Your task to perform on an android device: Search for "razer kraken" on target, select the first entry, and add it to the cart. Image 0: 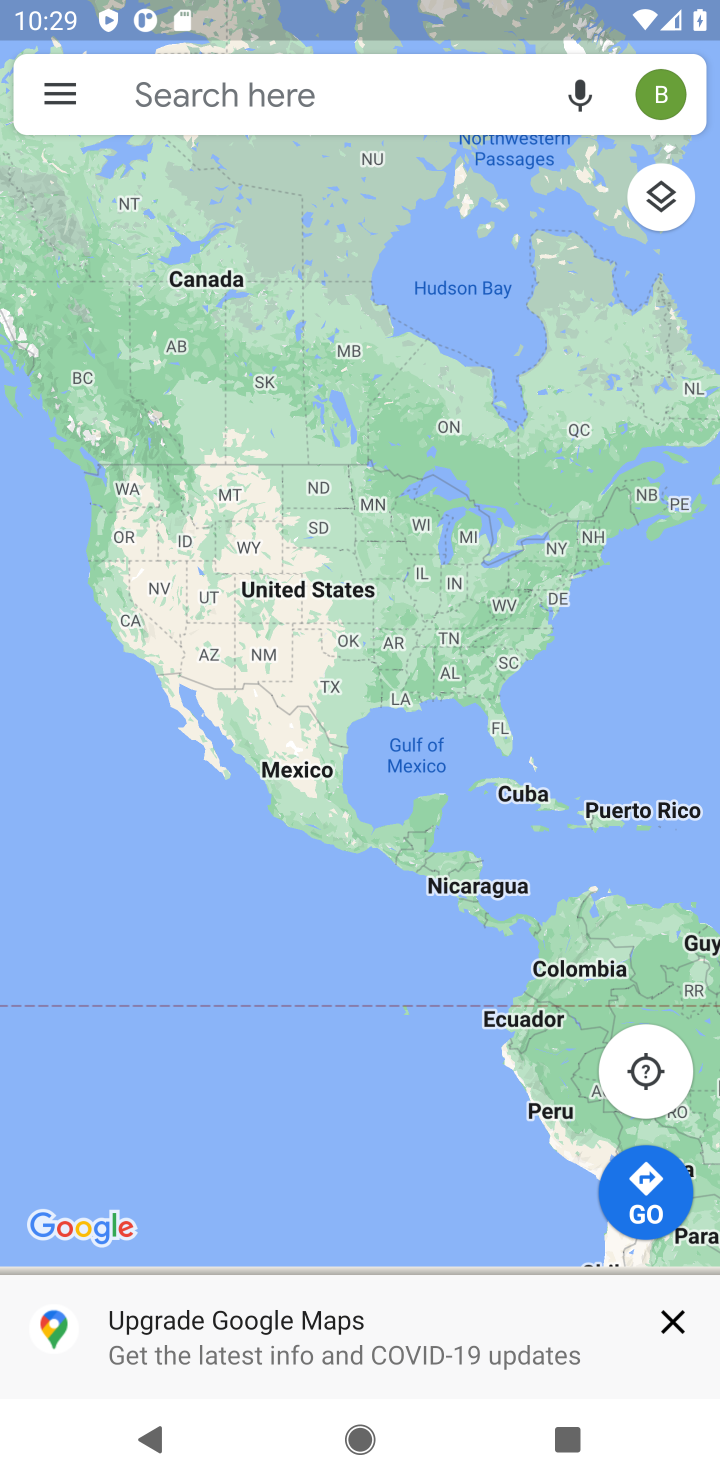
Step 0: press home button
Your task to perform on an android device: Search for "razer kraken" on target, select the first entry, and add it to the cart. Image 1: 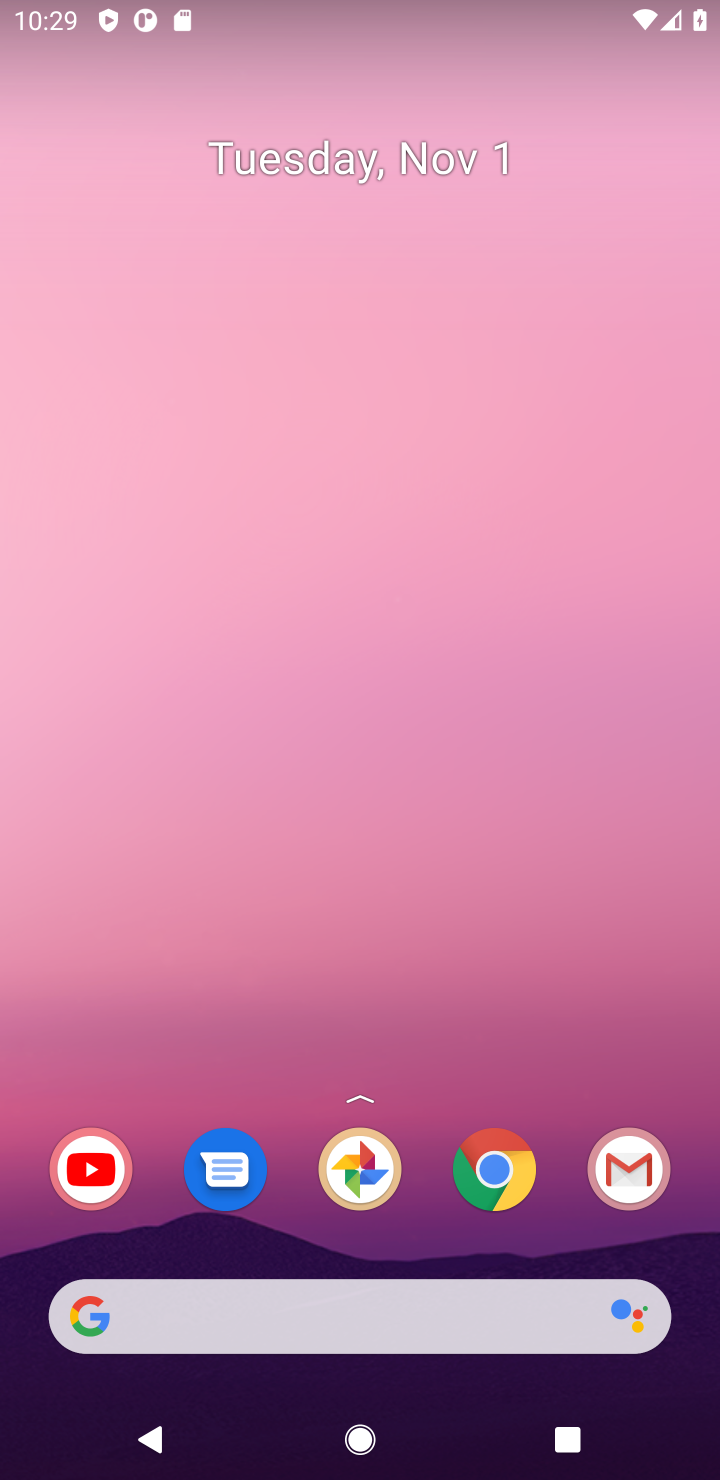
Step 1: click (497, 1174)
Your task to perform on an android device: Search for "razer kraken" on target, select the first entry, and add it to the cart. Image 2: 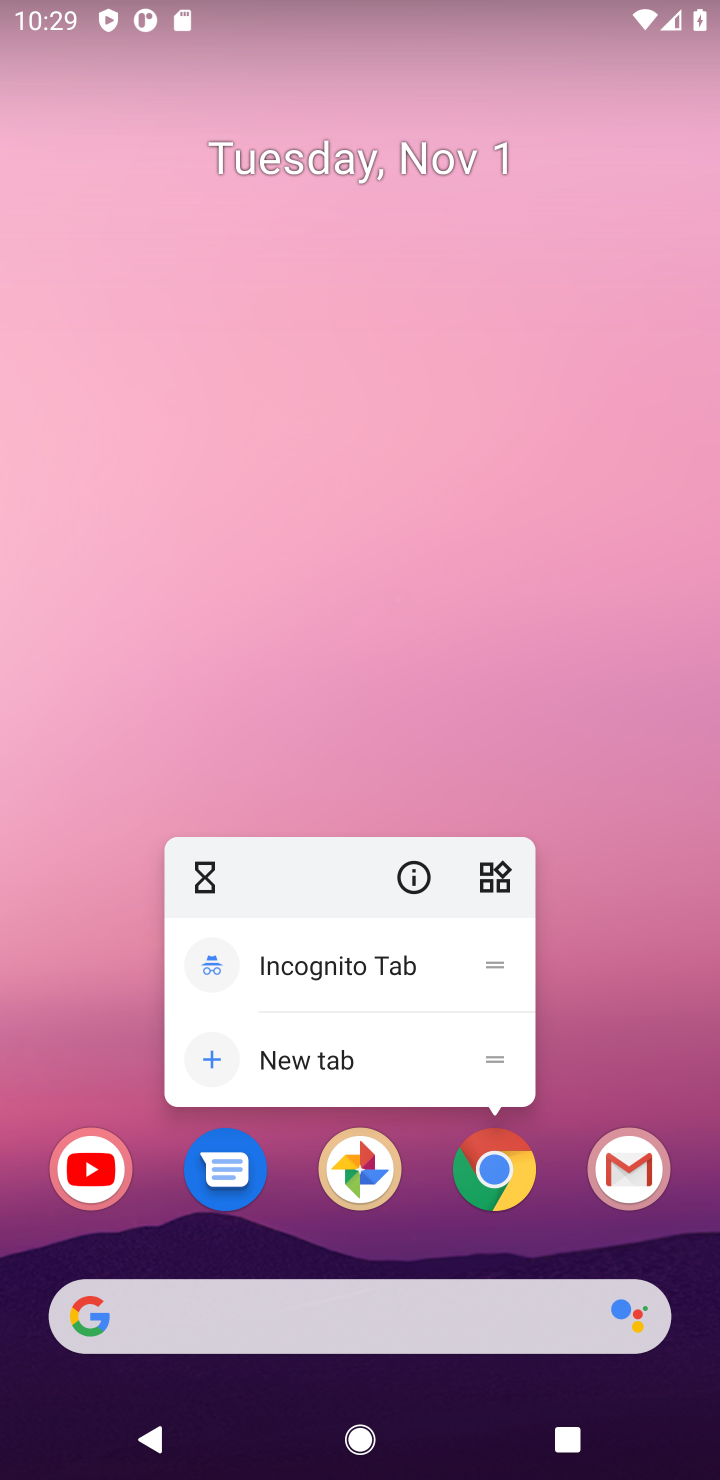
Step 2: click (477, 1177)
Your task to perform on an android device: Search for "razer kraken" on target, select the first entry, and add it to the cart. Image 3: 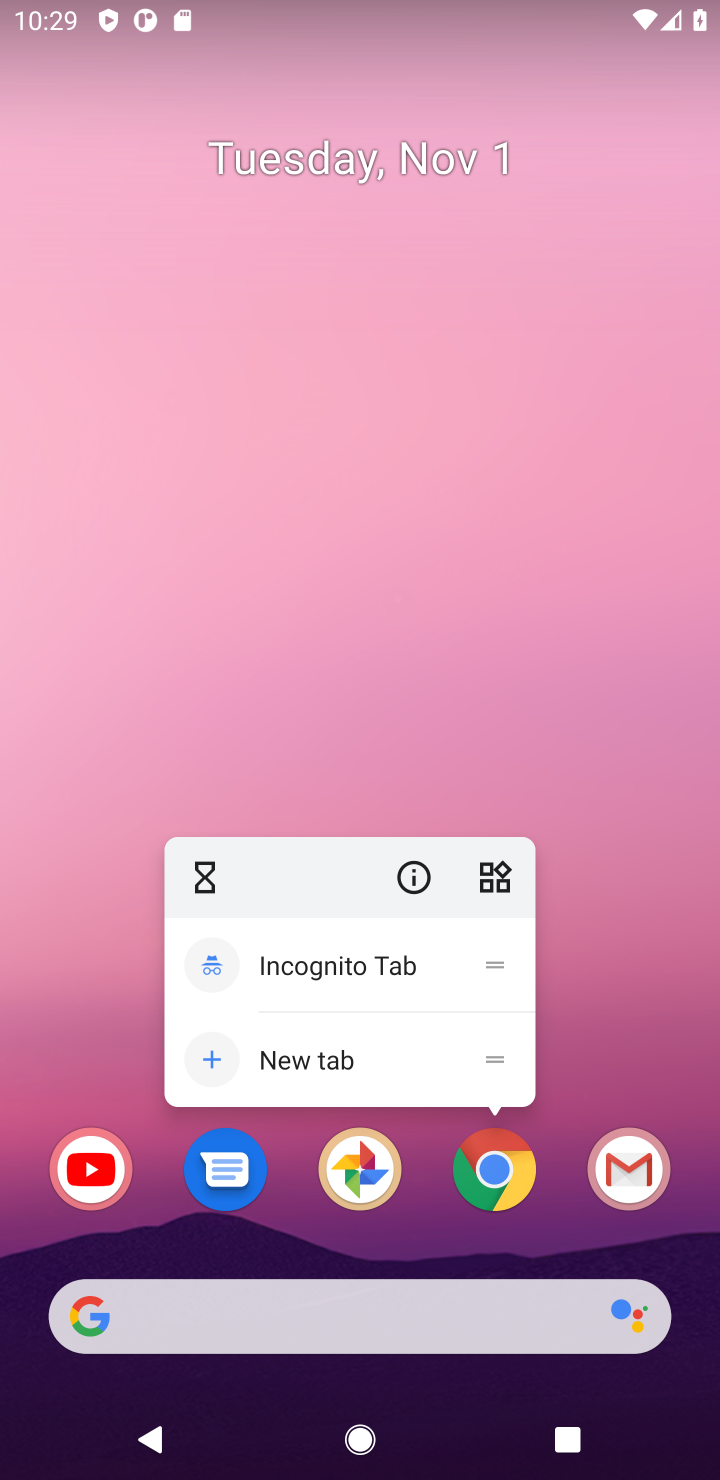
Step 3: click (477, 1177)
Your task to perform on an android device: Search for "razer kraken" on target, select the first entry, and add it to the cart. Image 4: 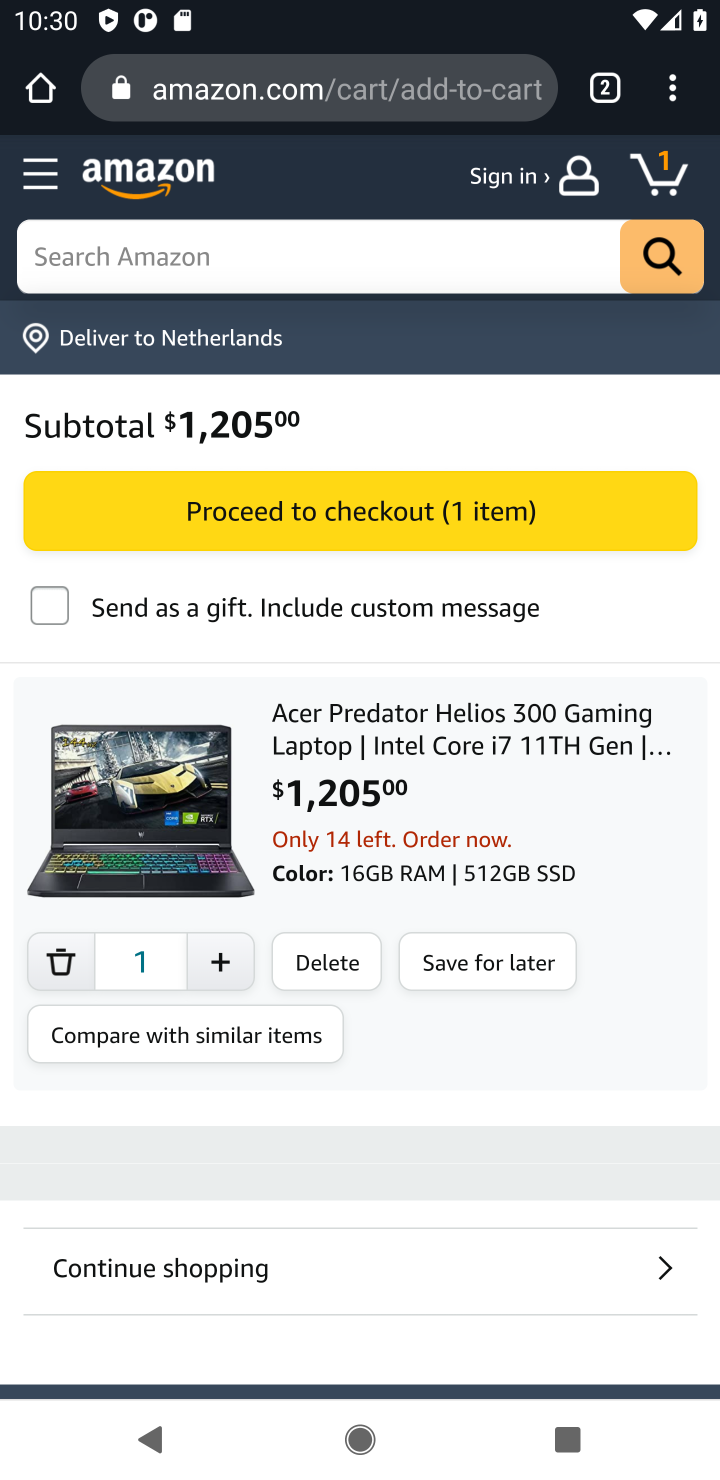
Step 4: click (343, 89)
Your task to perform on an android device: Search for "razer kraken" on target, select the first entry, and add it to the cart. Image 5: 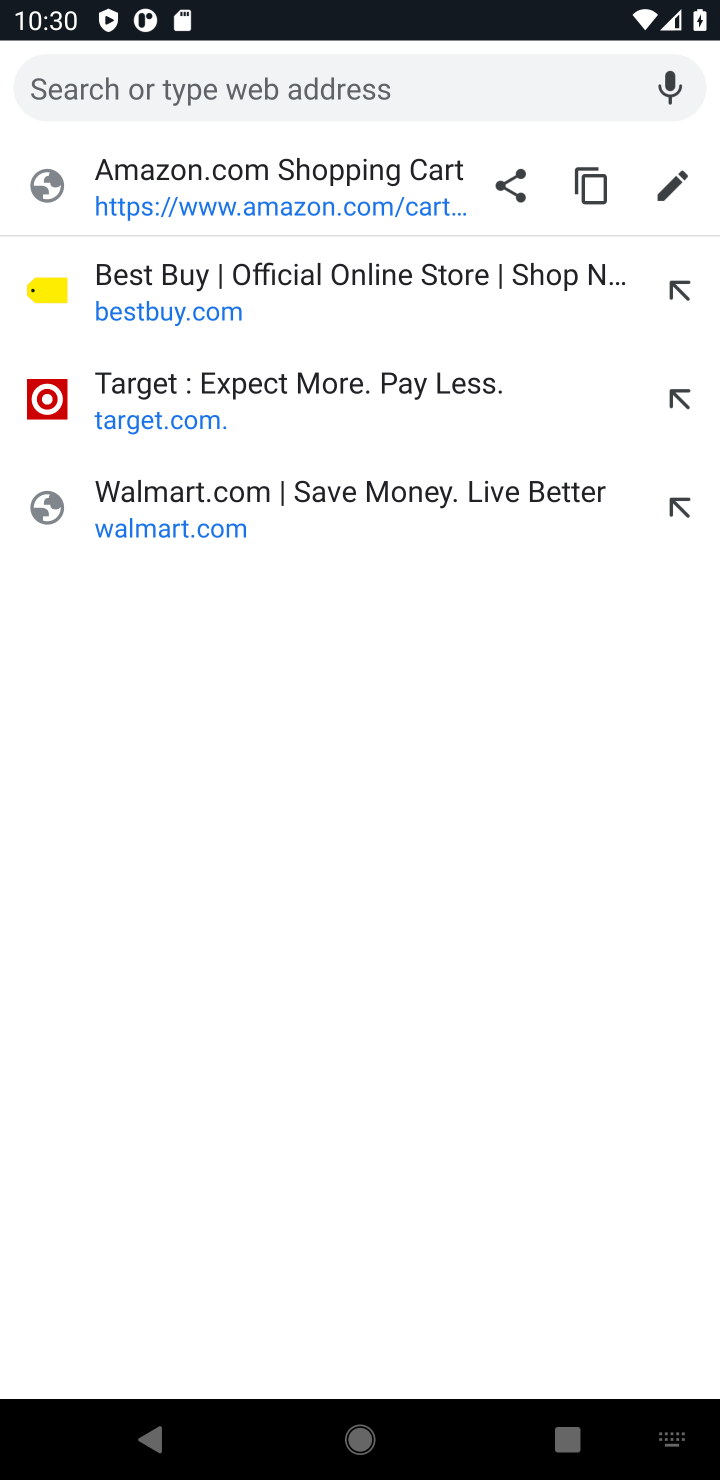
Step 5: type "target"
Your task to perform on an android device: Search for "razer kraken" on target, select the first entry, and add it to the cart. Image 6: 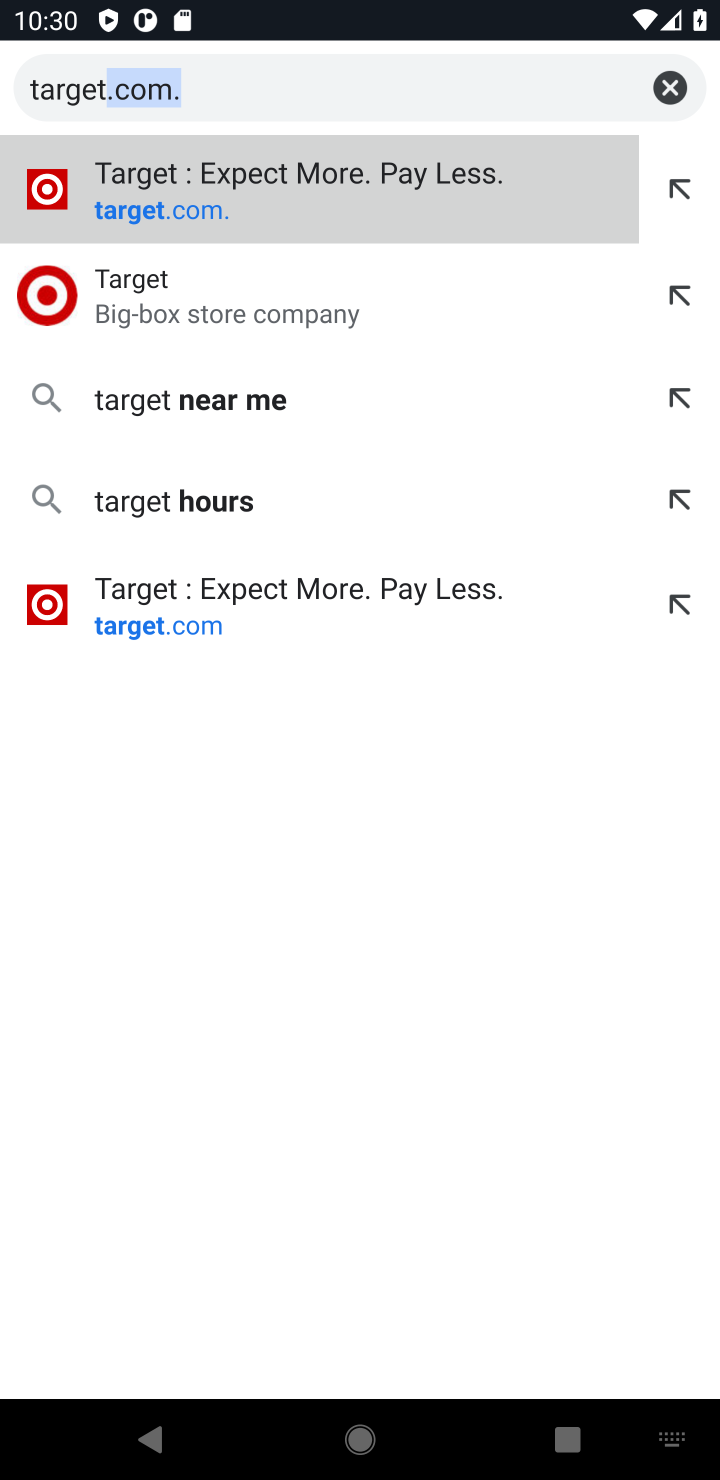
Step 6: click (258, 295)
Your task to perform on an android device: Search for "razer kraken" on target, select the first entry, and add it to the cart. Image 7: 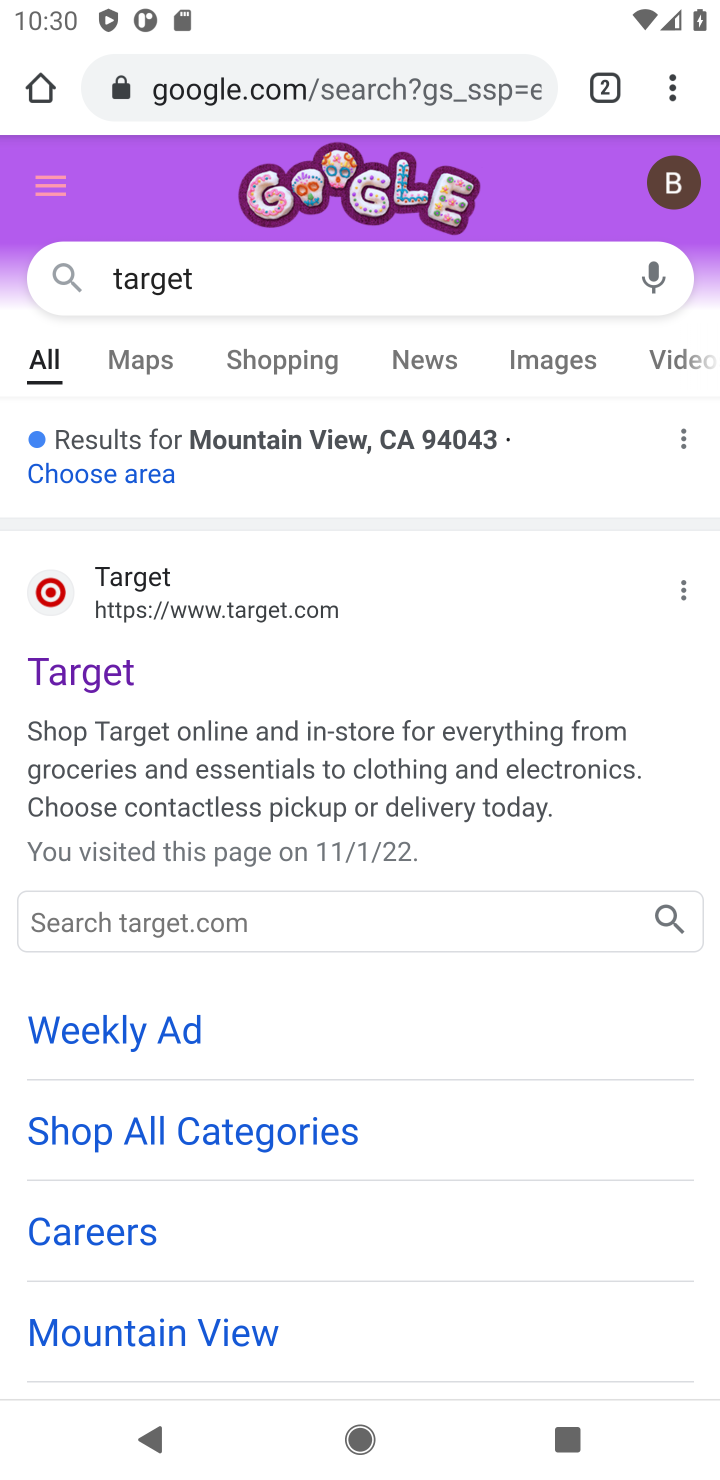
Step 7: drag from (363, 1006) to (375, 523)
Your task to perform on an android device: Search for "razer kraken" on target, select the first entry, and add it to the cart. Image 8: 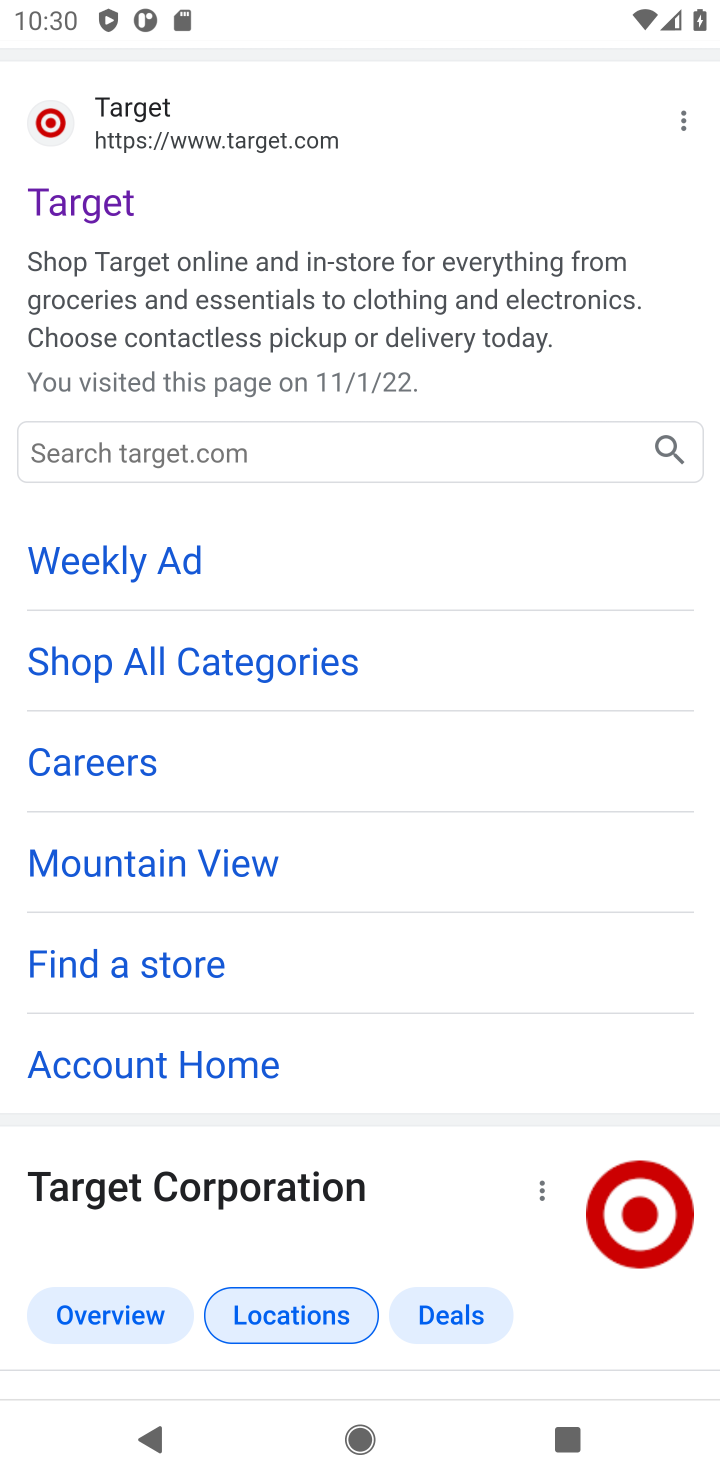
Step 8: drag from (353, 1040) to (571, 1240)
Your task to perform on an android device: Search for "razer kraken" on target, select the first entry, and add it to the cart. Image 9: 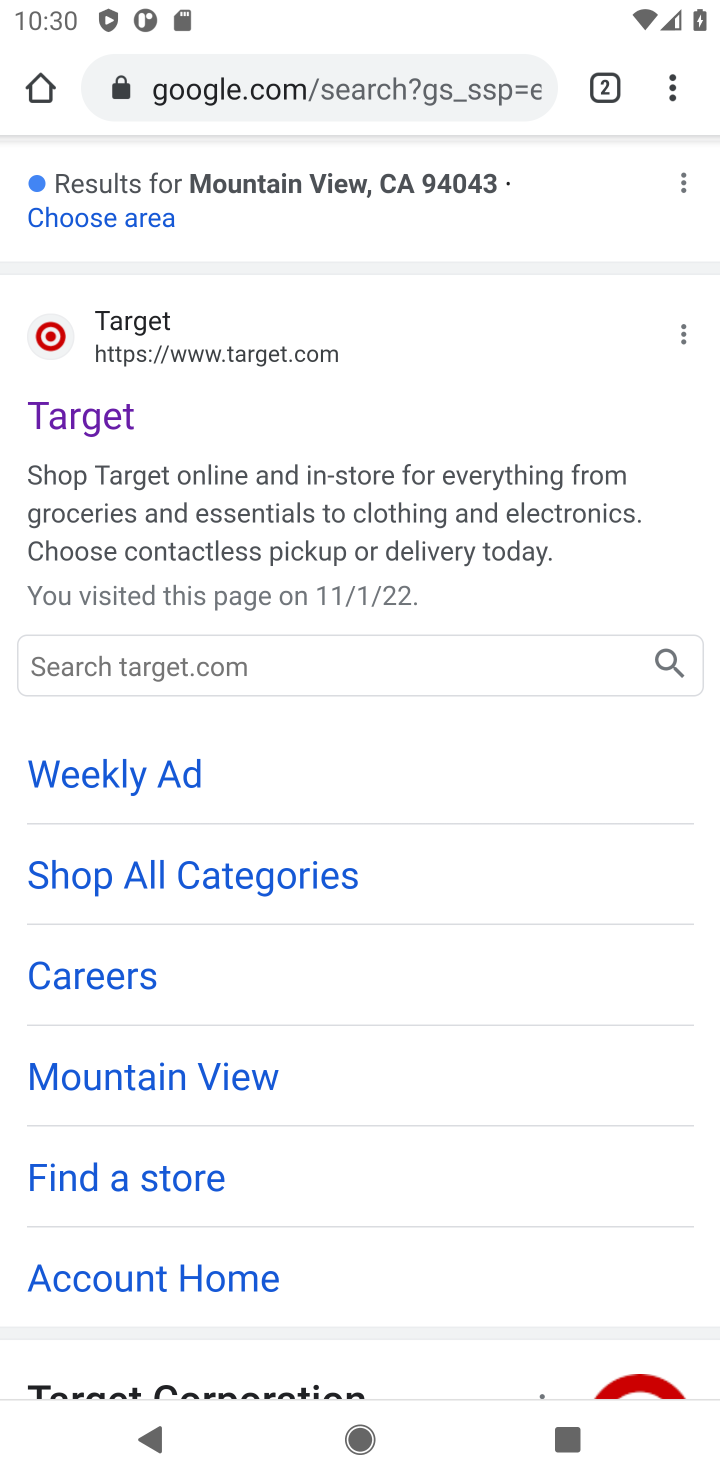
Step 9: click (165, 338)
Your task to perform on an android device: Search for "razer kraken" on target, select the first entry, and add it to the cart. Image 10: 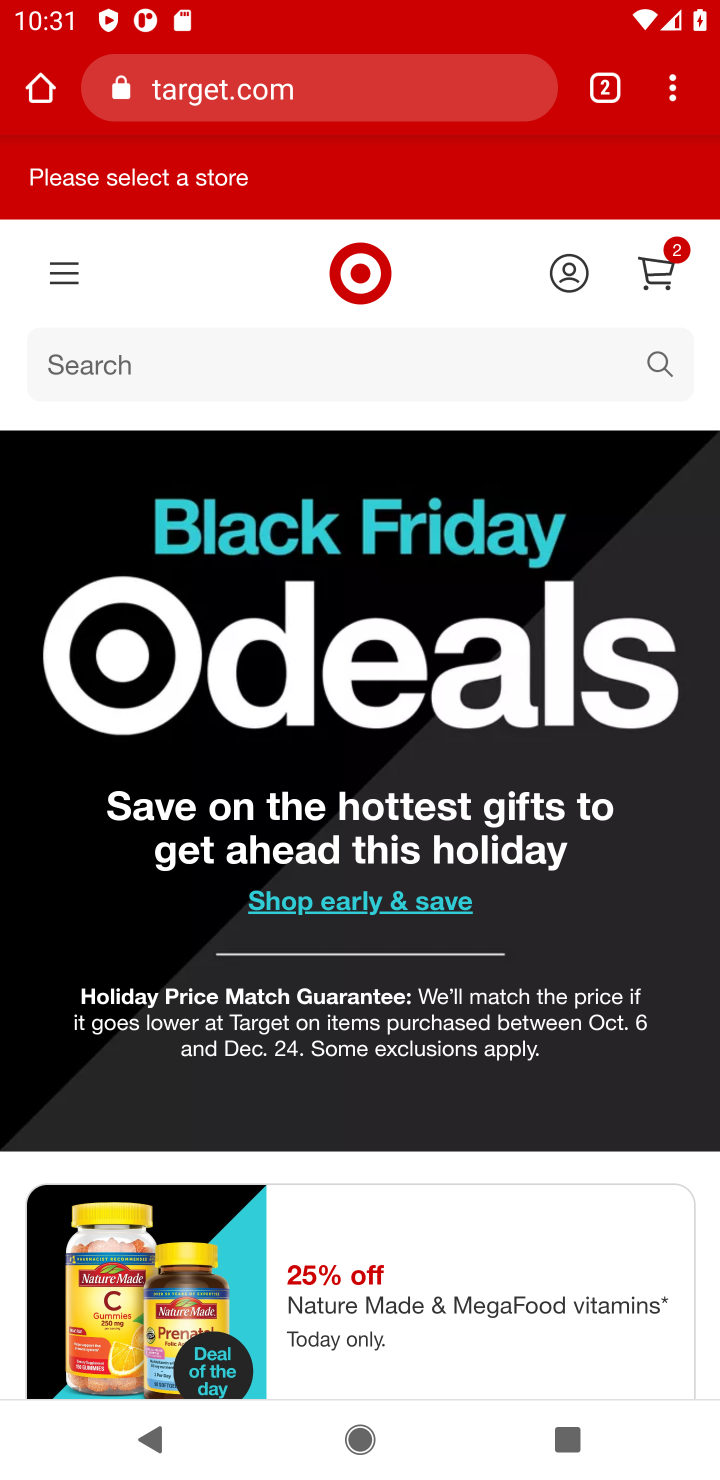
Step 10: click (659, 360)
Your task to perform on an android device: Search for "razer kraken" on target, select the first entry, and add it to the cart. Image 11: 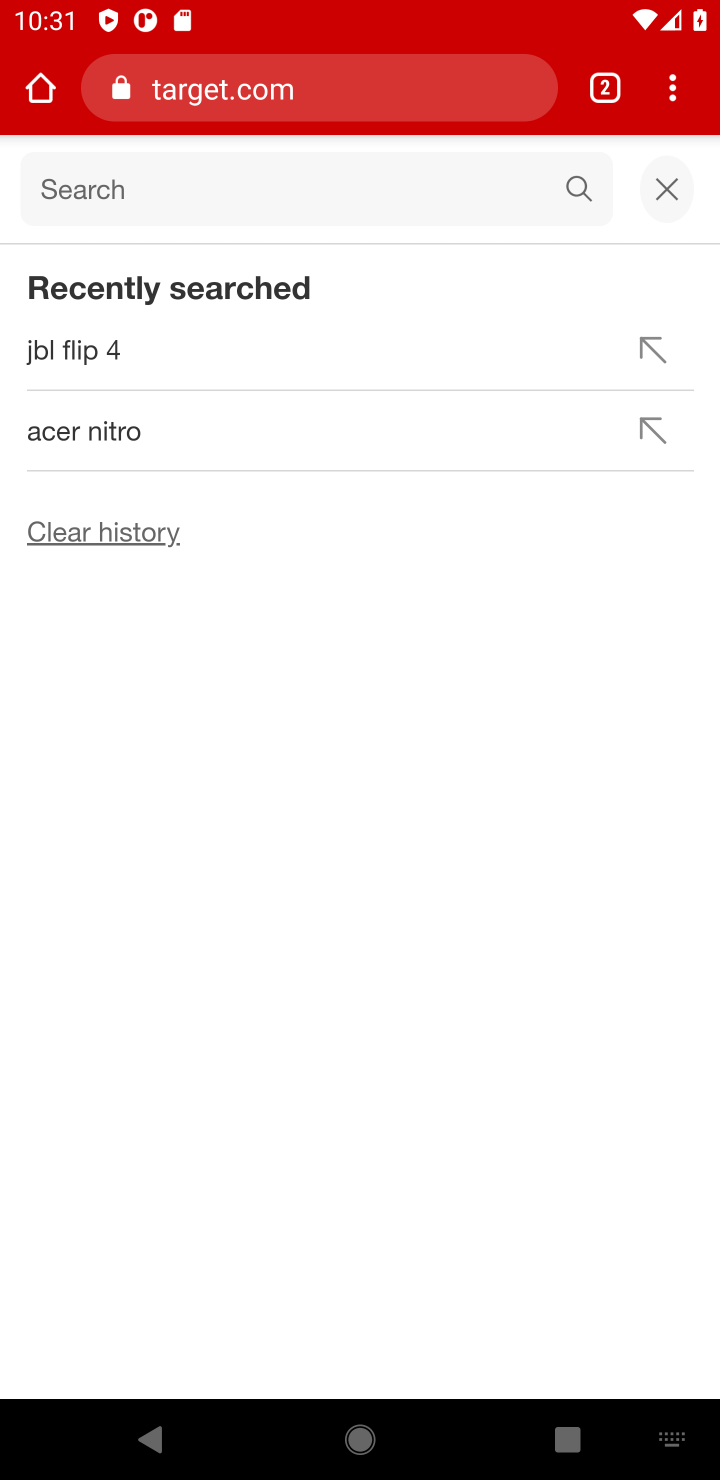
Step 11: type "razer kraken"
Your task to perform on an android device: Search for "razer kraken" on target, select the first entry, and add it to the cart. Image 12: 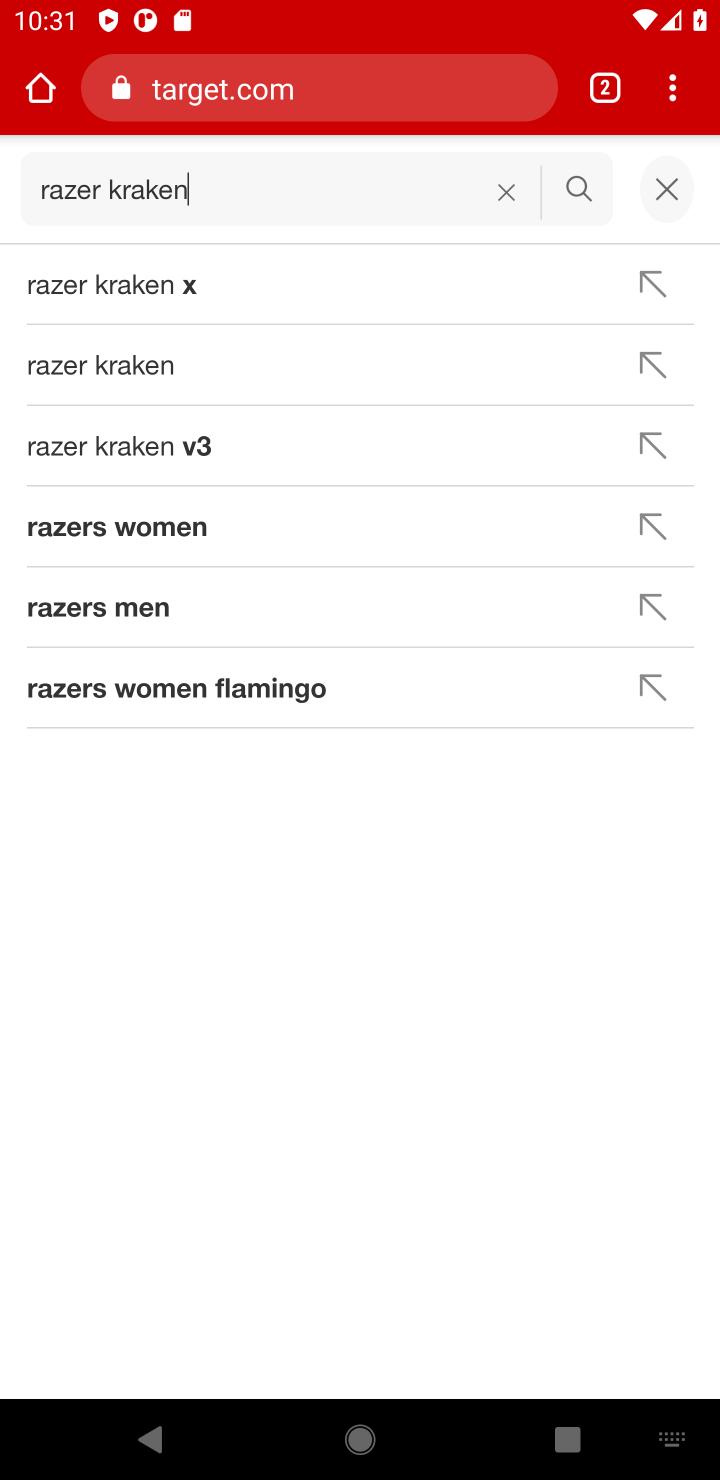
Step 12: click (127, 365)
Your task to perform on an android device: Search for "razer kraken" on target, select the first entry, and add it to the cart. Image 13: 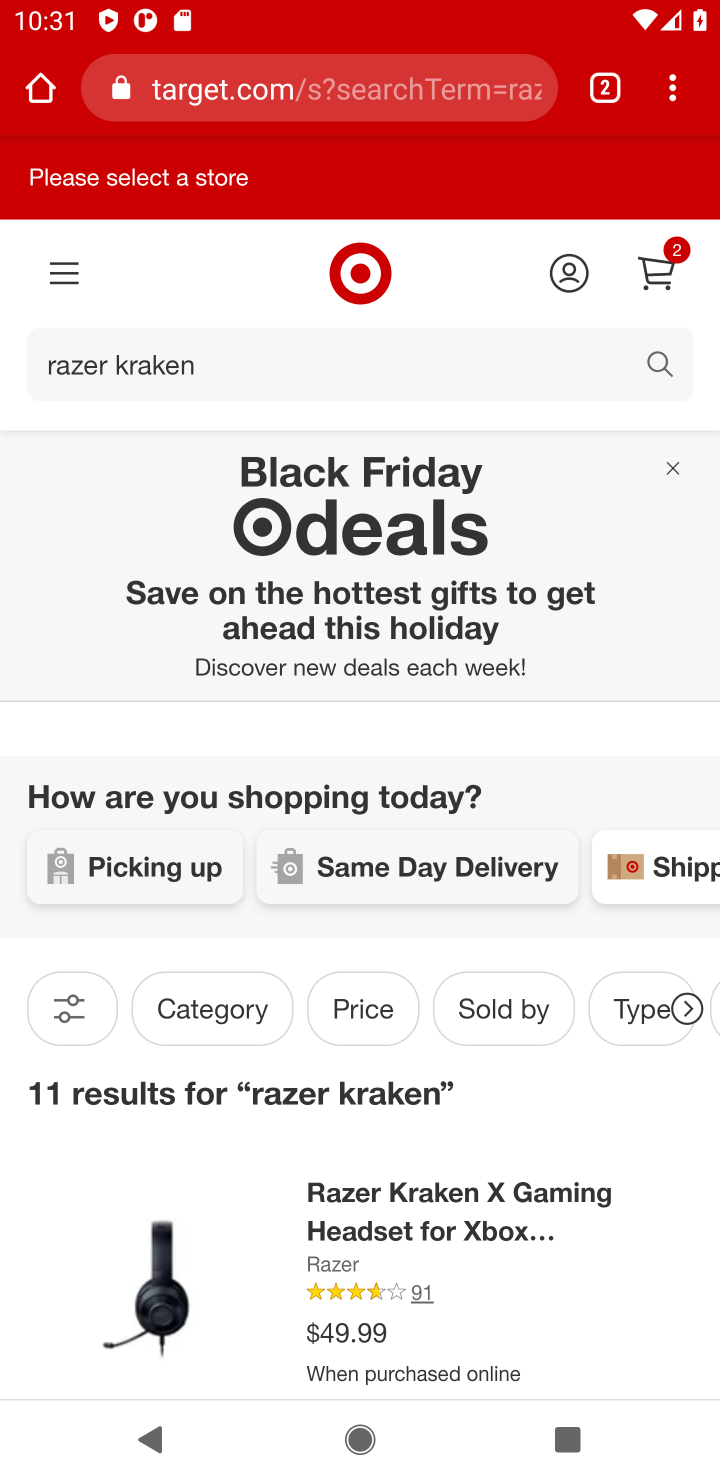
Step 13: click (171, 1231)
Your task to perform on an android device: Search for "razer kraken" on target, select the first entry, and add it to the cart. Image 14: 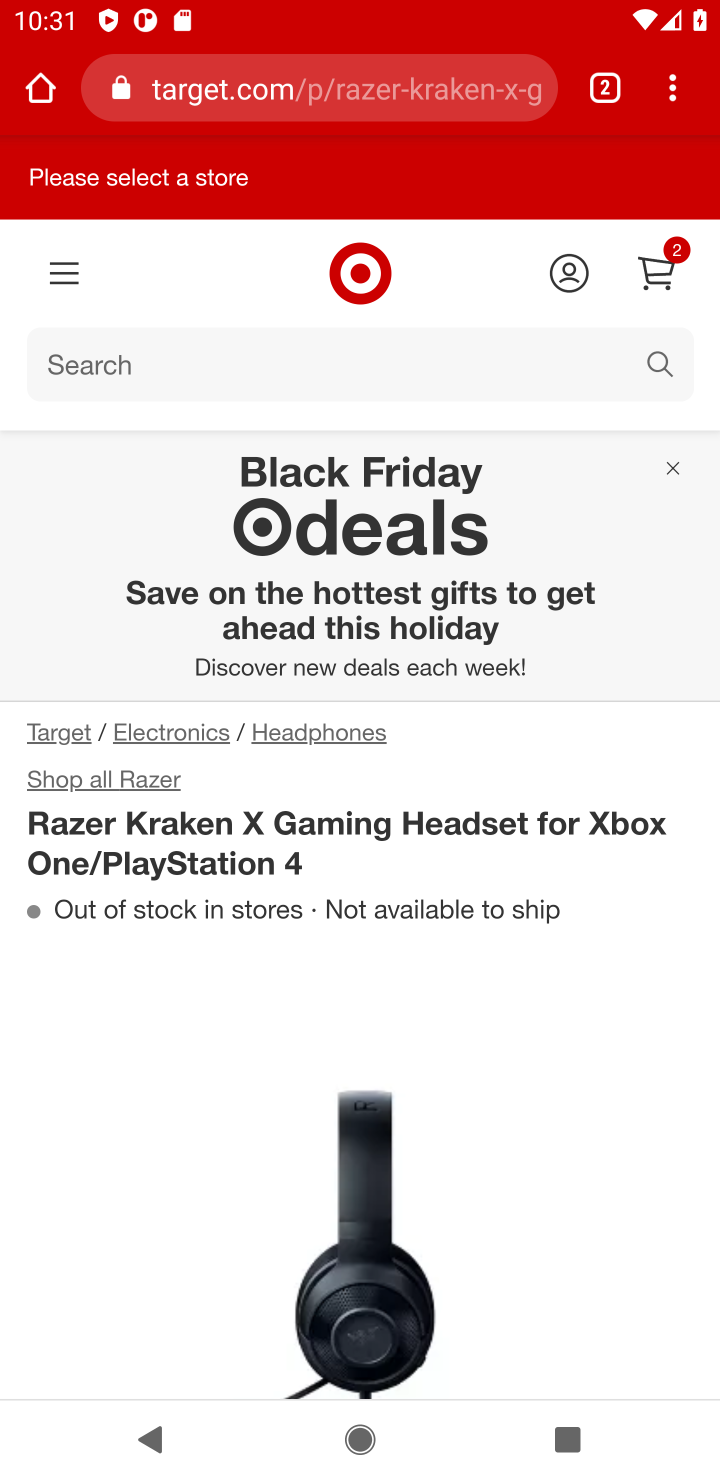
Step 14: drag from (484, 899) to (431, 566)
Your task to perform on an android device: Search for "razer kraken" on target, select the first entry, and add it to the cart. Image 15: 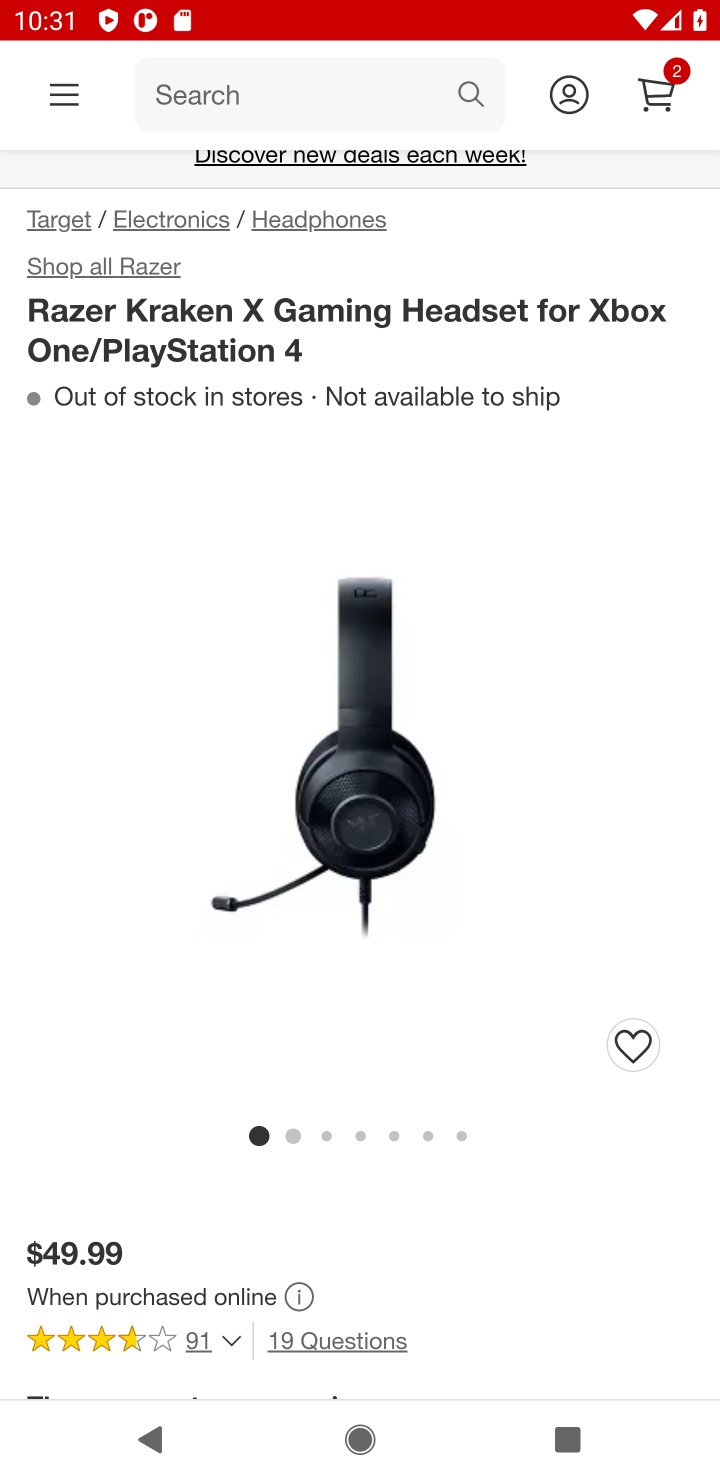
Step 15: drag from (541, 1118) to (464, 507)
Your task to perform on an android device: Search for "razer kraken" on target, select the first entry, and add it to the cart. Image 16: 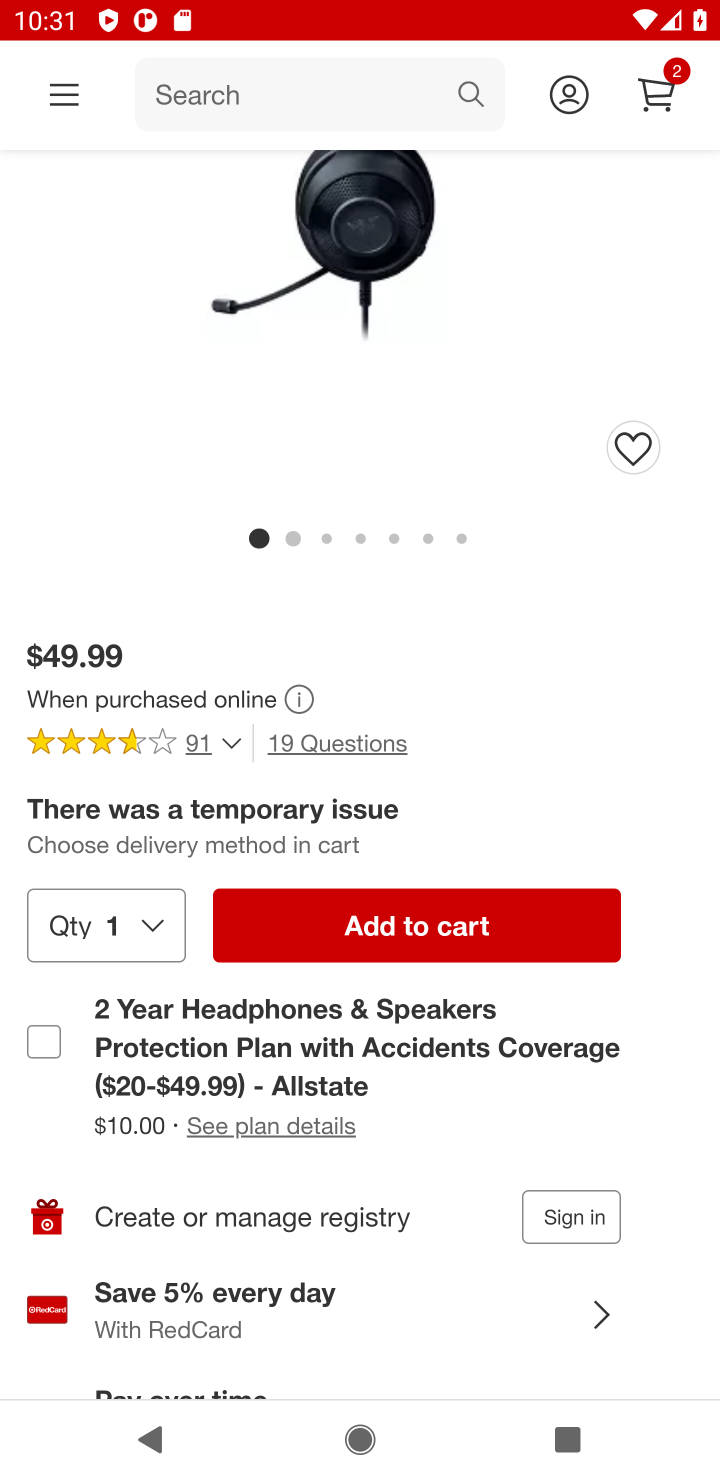
Step 16: click (478, 929)
Your task to perform on an android device: Search for "razer kraken" on target, select the first entry, and add it to the cart. Image 17: 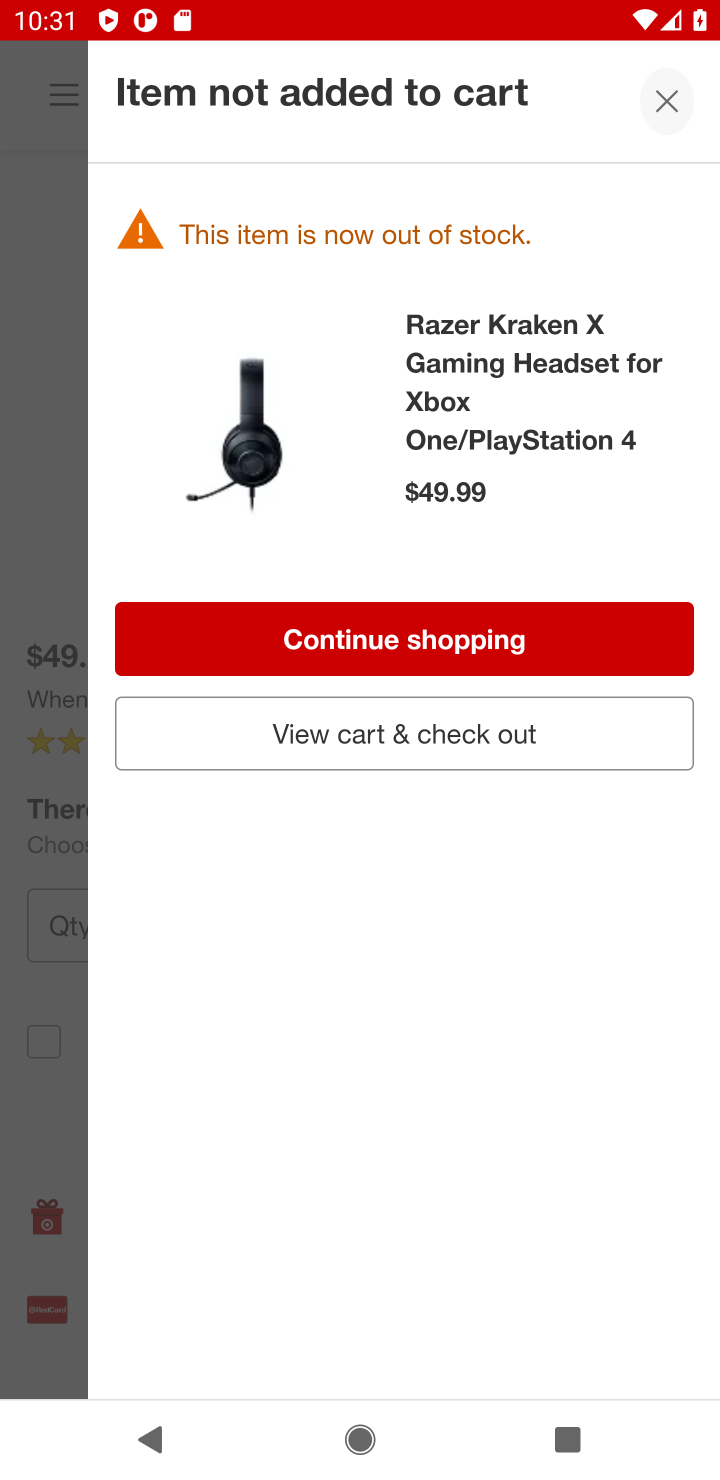
Step 17: task complete